Your task to perform on an android device: Open Chrome and go to settings Image 0: 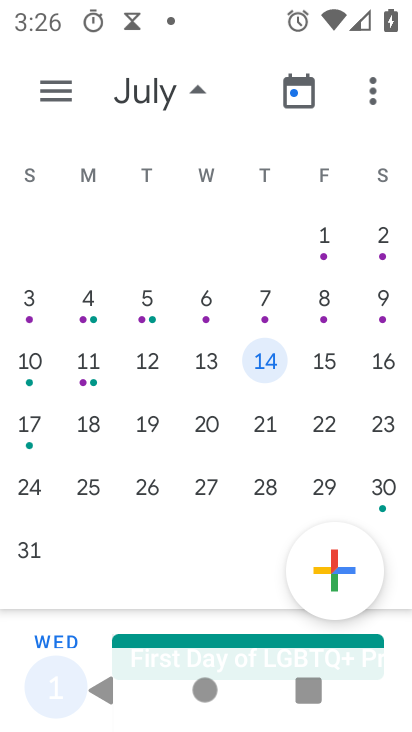
Step 0: press home button
Your task to perform on an android device: Open Chrome and go to settings Image 1: 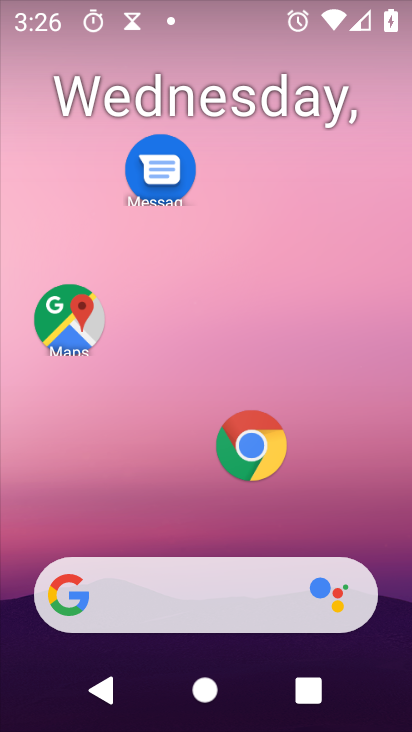
Step 1: click (249, 446)
Your task to perform on an android device: Open Chrome and go to settings Image 2: 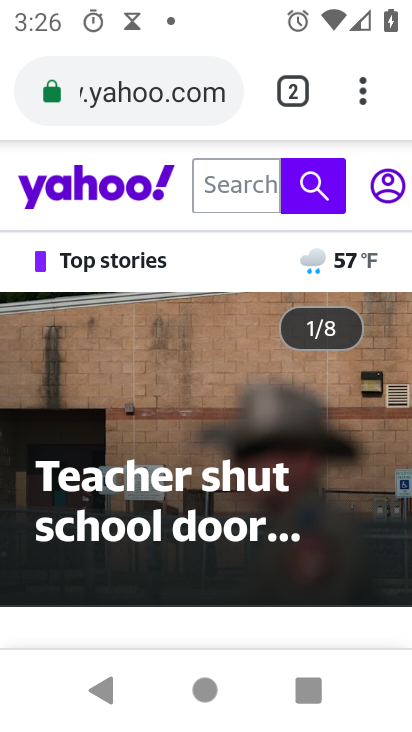
Step 2: click (364, 85)
Your task to perform on an android device: Open Chrome and go to settings Image 3: 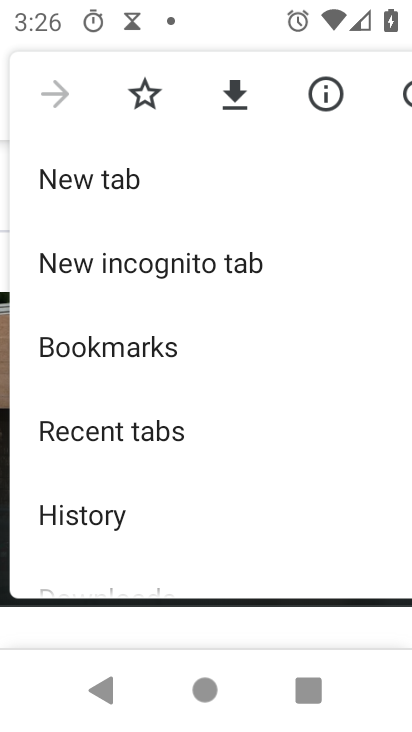
Step 3: drag from (33, 536) to (345, 76)
Your task to perform on an android device: Open Chrome and go to settings Image 4: 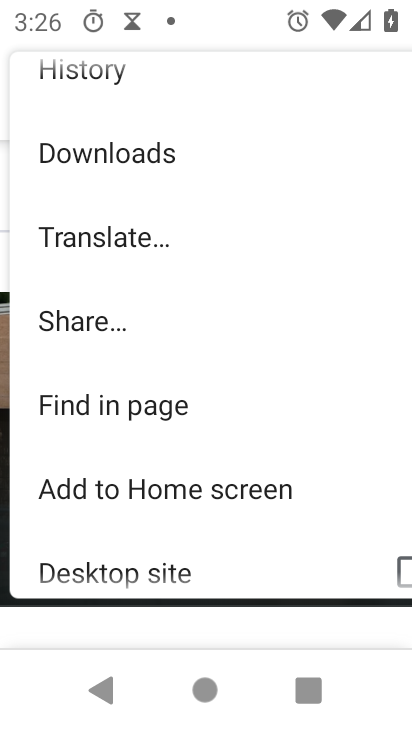
Step 4: drag from (16, 559) to (312, 144)
Your task to perform on an android device: Open Chrome and go to settings Image 5: 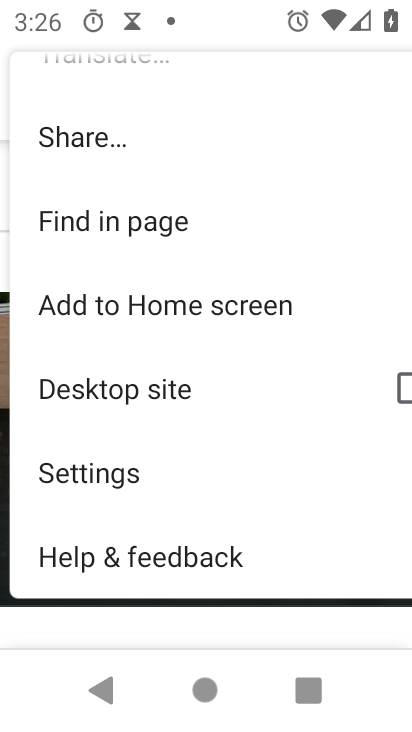
Step 5: click (90, 475)
Your task to perform on an android device: Open Chrome and go to settings Image 6: 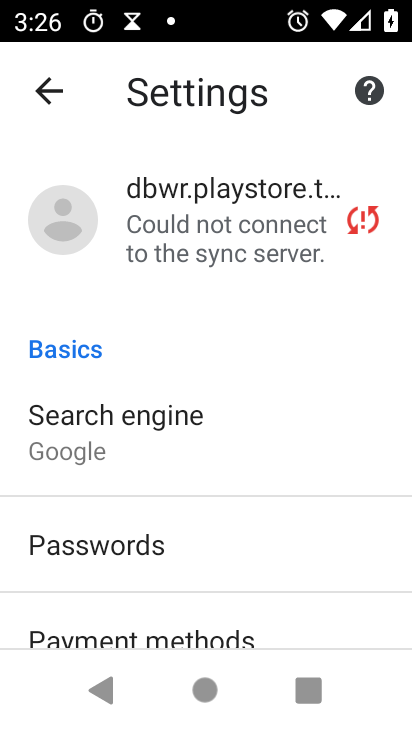
Step 6: task complete